Your task to perform on an android device: Open battery settings Image 0: 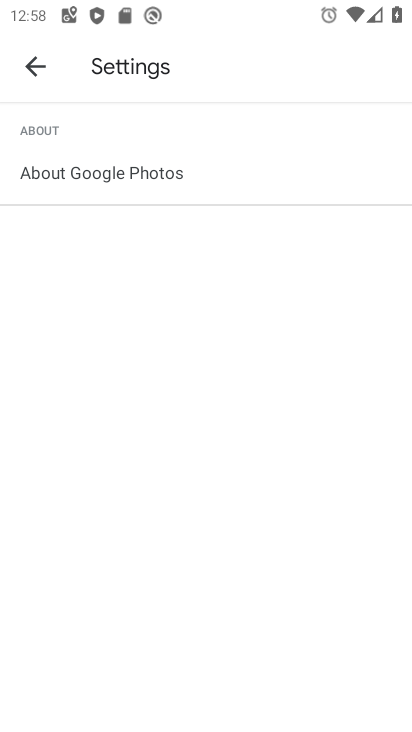
Step 0: press home button
Your task to perform on an android device: Open battery settings Image 1: 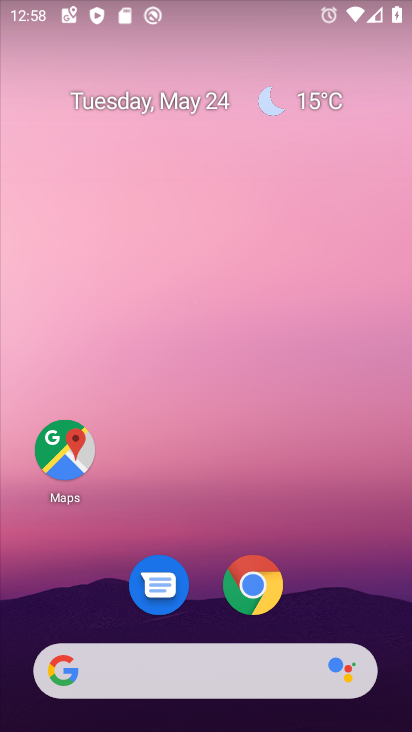
Step 1: drag from (223, 495) to (206, 50)
Your task to perform on an android device: Open battery settings Image 2: 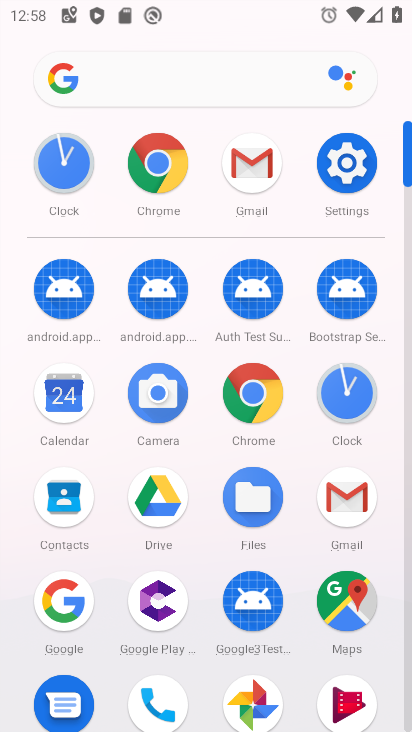
Step 2: click (339, 164)
Your task to perform on an android device: Open battery settings Image 3: 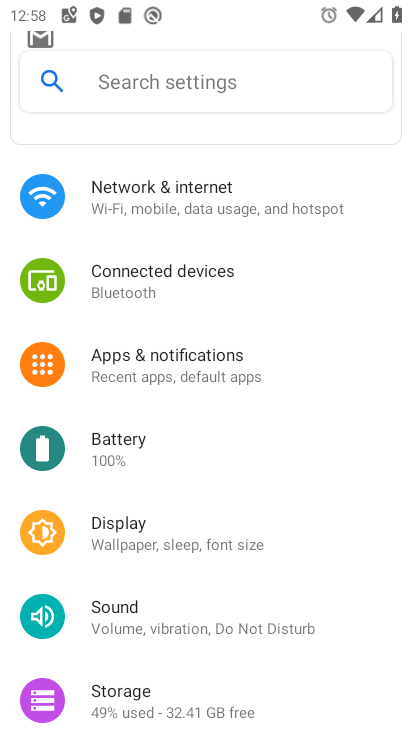
Step 3: click (165, 447)
Your task to perform on an android device: Open battery settings Image 4: 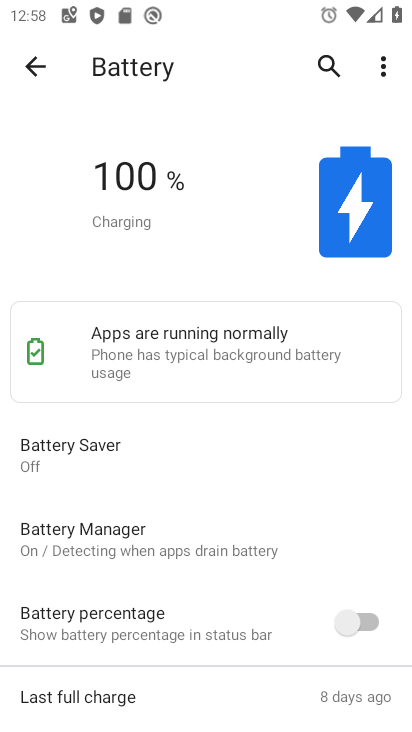
Step 4: task complete